Your task to perform on an android device: open app "WhatsApp Messenger" (install if not already installed) and go to login screen Image 0: 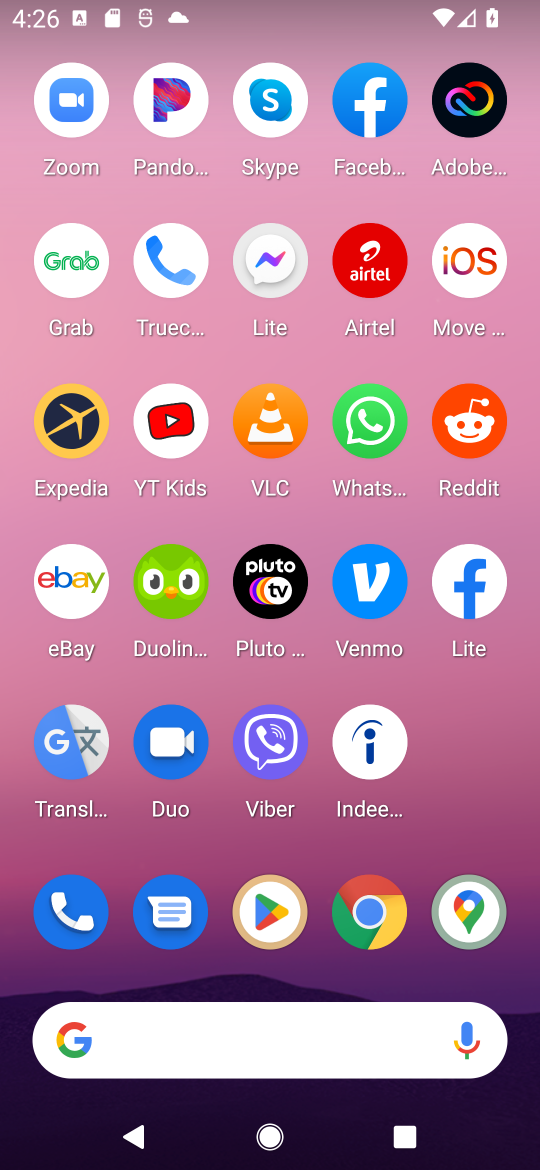
Step 0: drag from (194, 1051) to (260, 36)
Your task to perform on an android device: open app "WhatsApp Messenger" (install if not already installed) and go to login screen Image 1: 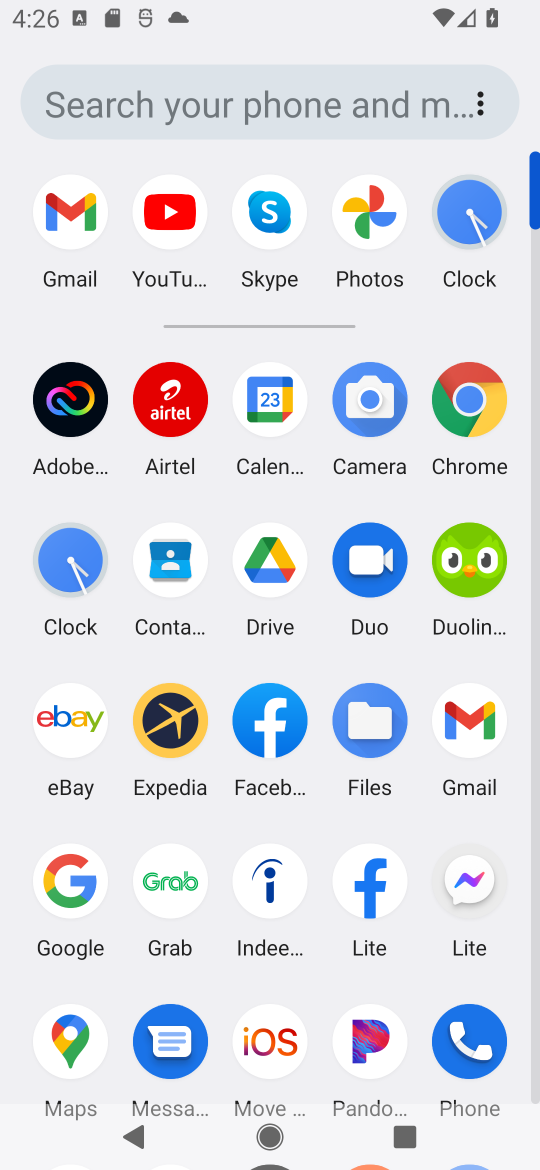
Step 1: drag from (314, 1006) to (285, 367)
Your task to perform on an android device: open app "WhatsApp Messenger" (install if not already installed) and go to login screen Image 2: 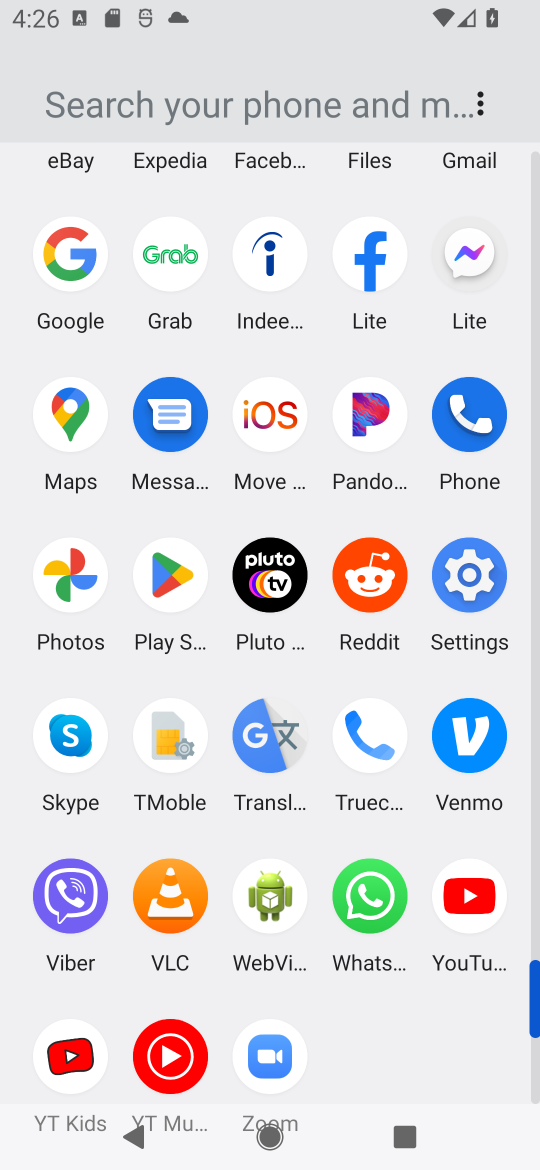
Step 2: click (167, 580)
Your task to perform on an android device: open app "WhatsApp Messenger" (install if not already installed) and go to login screen Image 3: 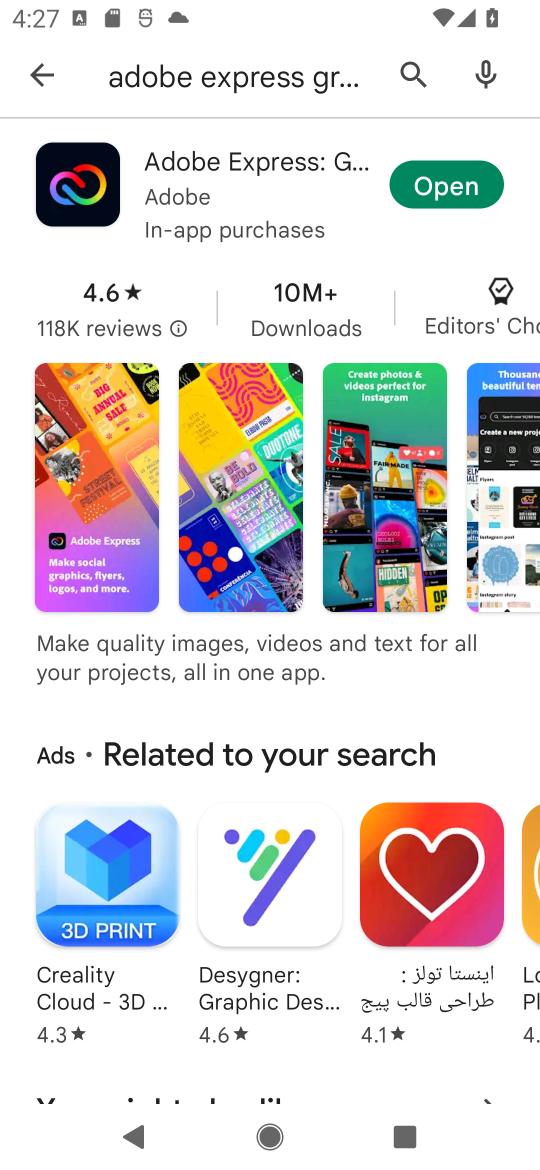
Step 3: press back button
Your task to perform on an android device: open app "WhatsApp Messenger" (install if not already installed) and go to login screen Image 4: 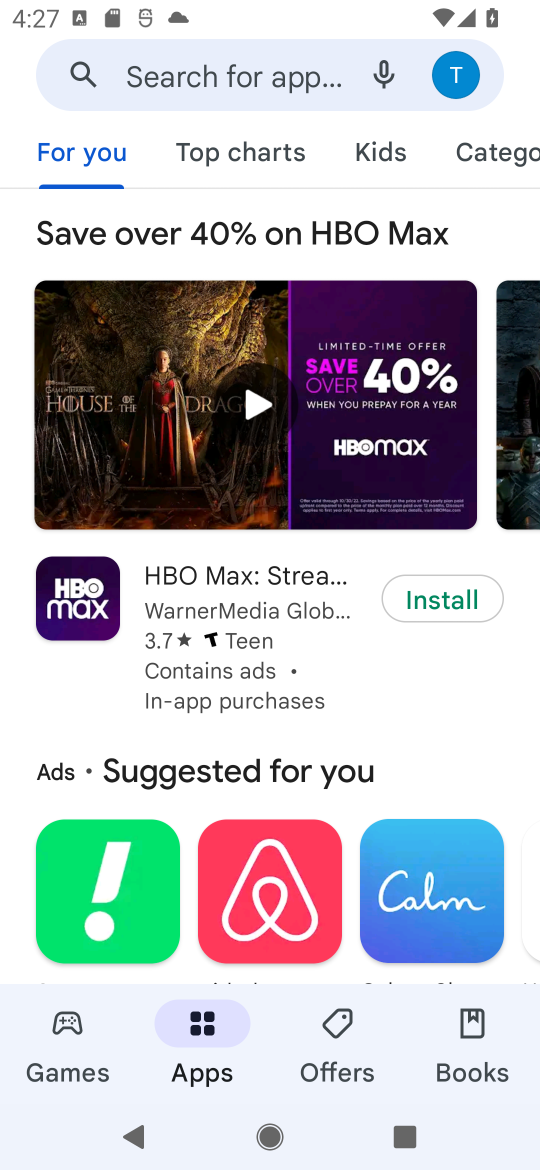
Step 4: click (283, 74)
Your task to perform on an android device: open app "WhatsApp Messenger" (install if not already installed) and go to login screen Image 5: 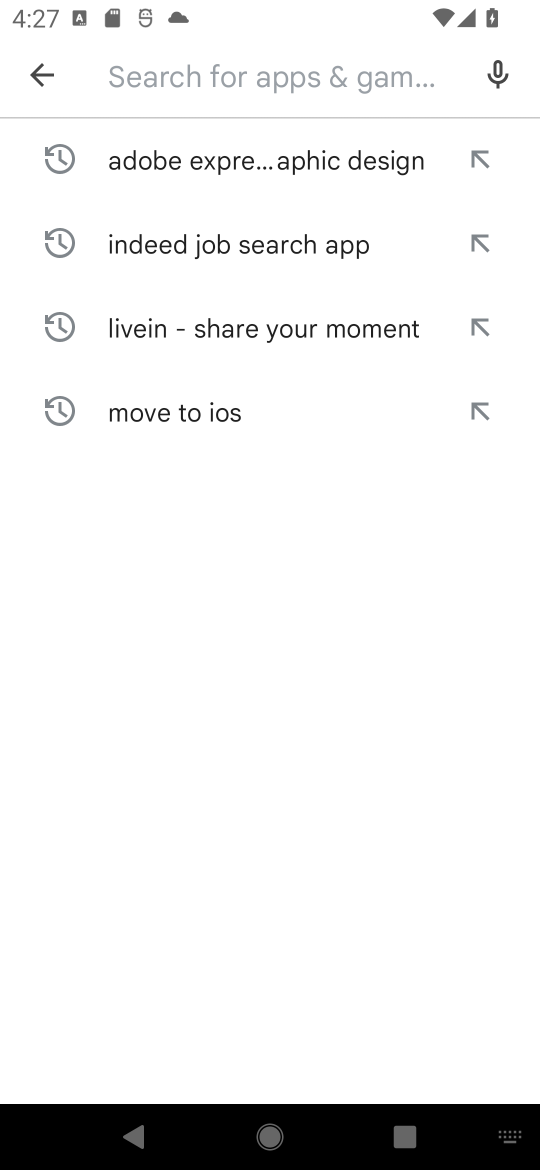
Step 5: type "WhatsApp Messenger"
Your task to perform on an android device: open app "WhatsApp Messenger" (install if not already installed) and go to login screen Image 6: 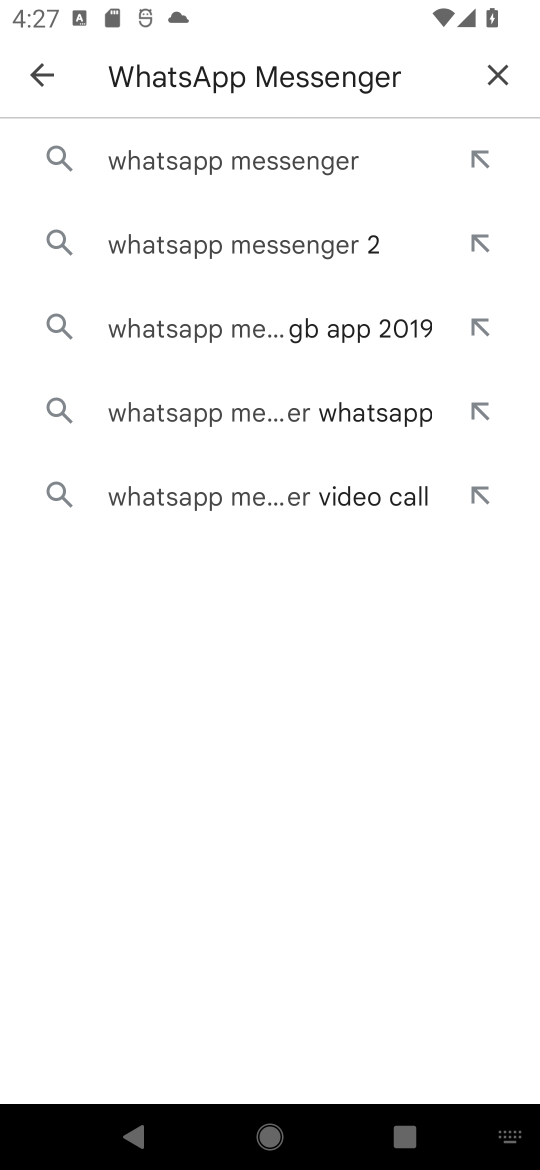
Step 6: click (269, 162)
Your task to perform on an android device: open app "WhatsApp Messenger" (install if not already installed) and go to login screen Image 7: 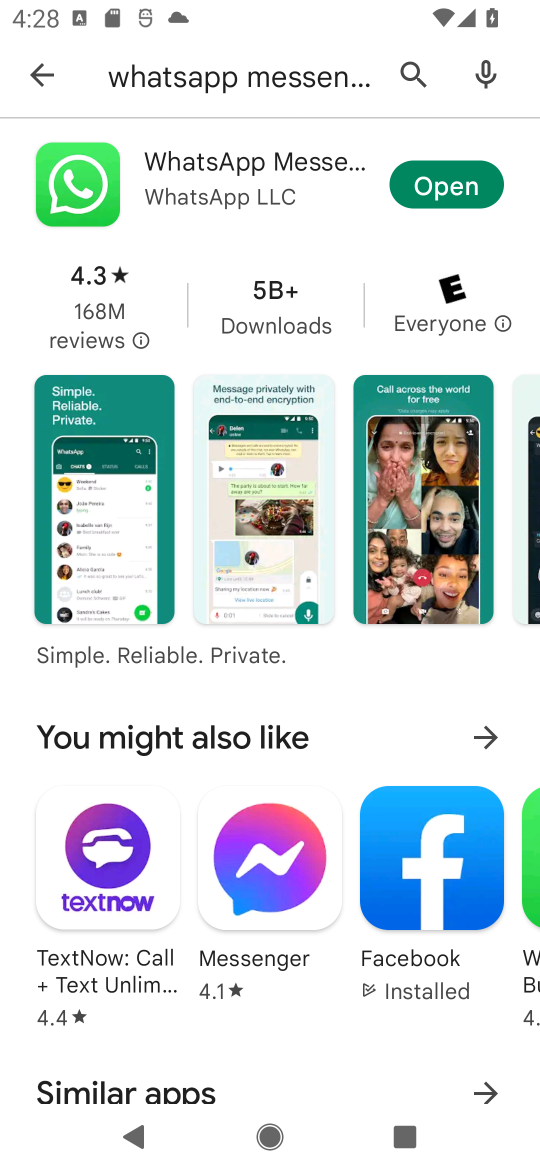
Step 7: click (463, 188)
Your task to perform on an android device: open app "WhatsApp Messenger" (install if not already installed) and go to login screen Image 8: 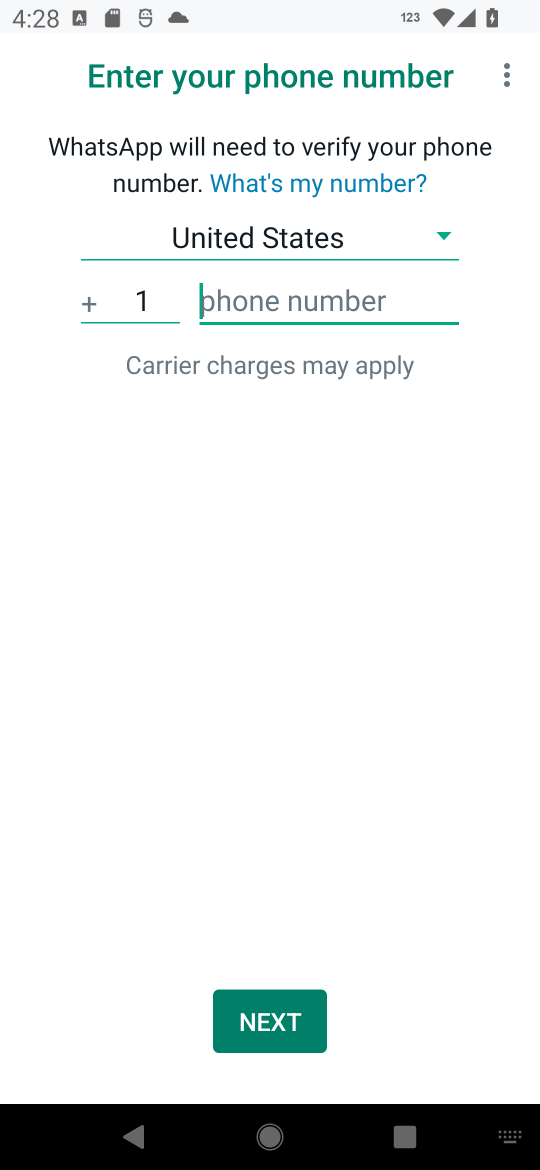
Step 8: task complete